Your task to perform on an android device: What's the news about the US dollar exchange rate? Image 0: 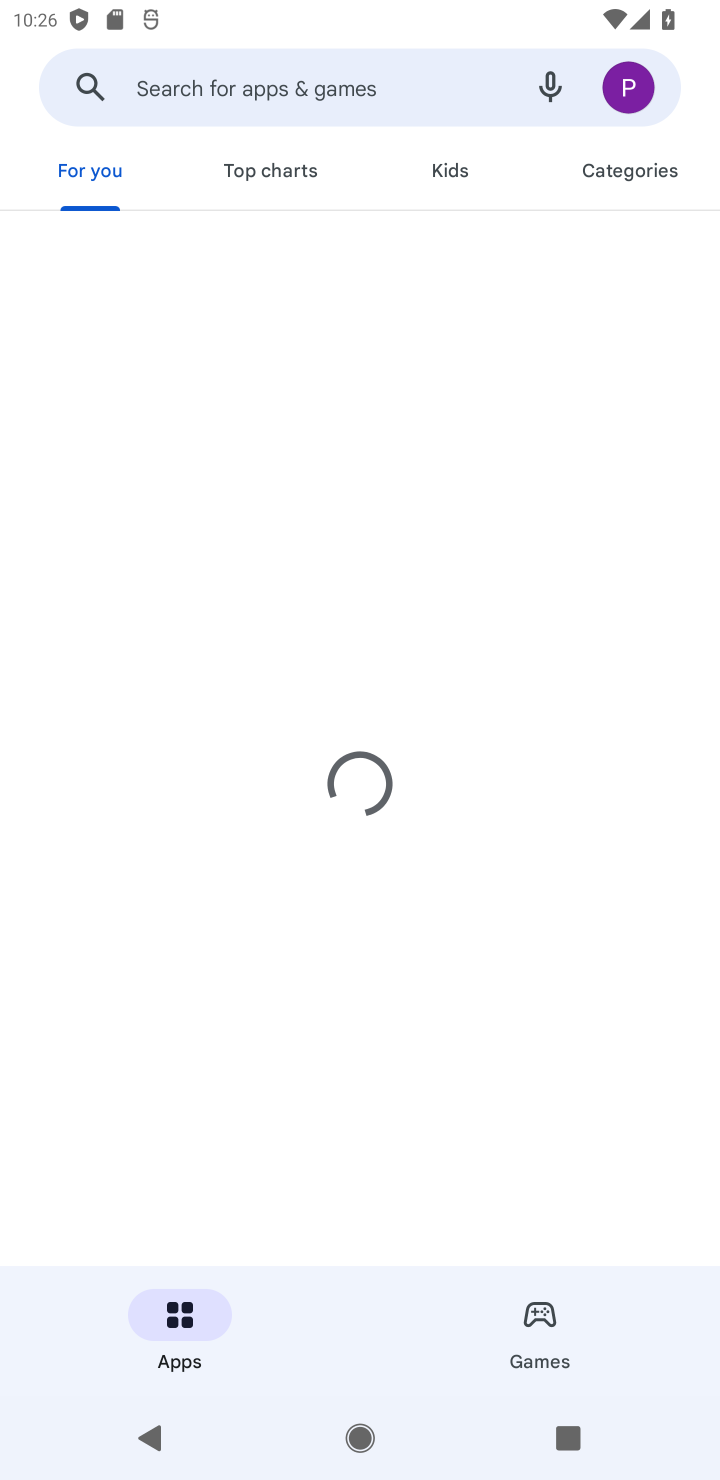
Step 0: press home button
Your task to perform on an android device: What's the news about the US dollar exchange rate? Image 1: 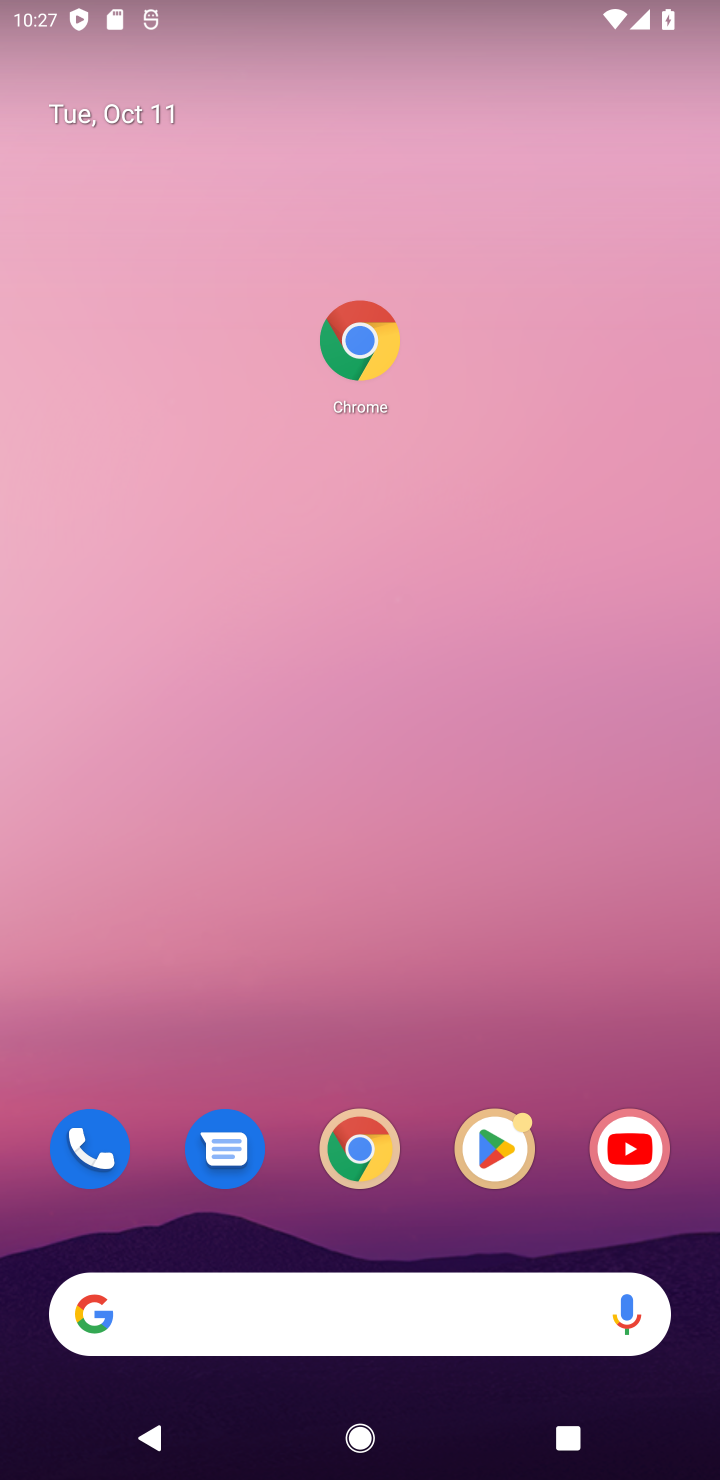
Step 1: drag from (374, 713) to (461, 280)
Your task to perform on an android device: What's the news about the US dollar exchange rate? Image 2: 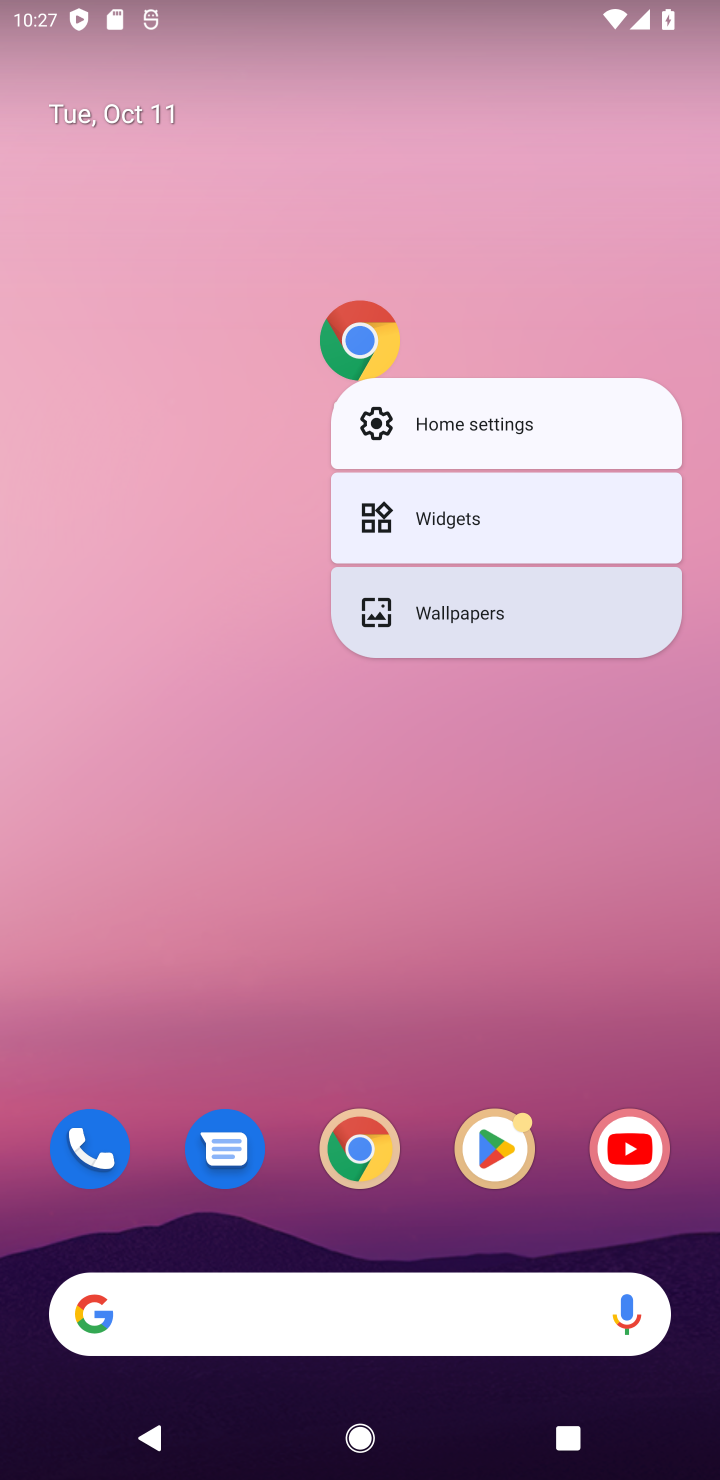
Step 2: click (414, 884)
Your task to perform on an android device: What's the news about the US dollar exchange rate? Image 3: 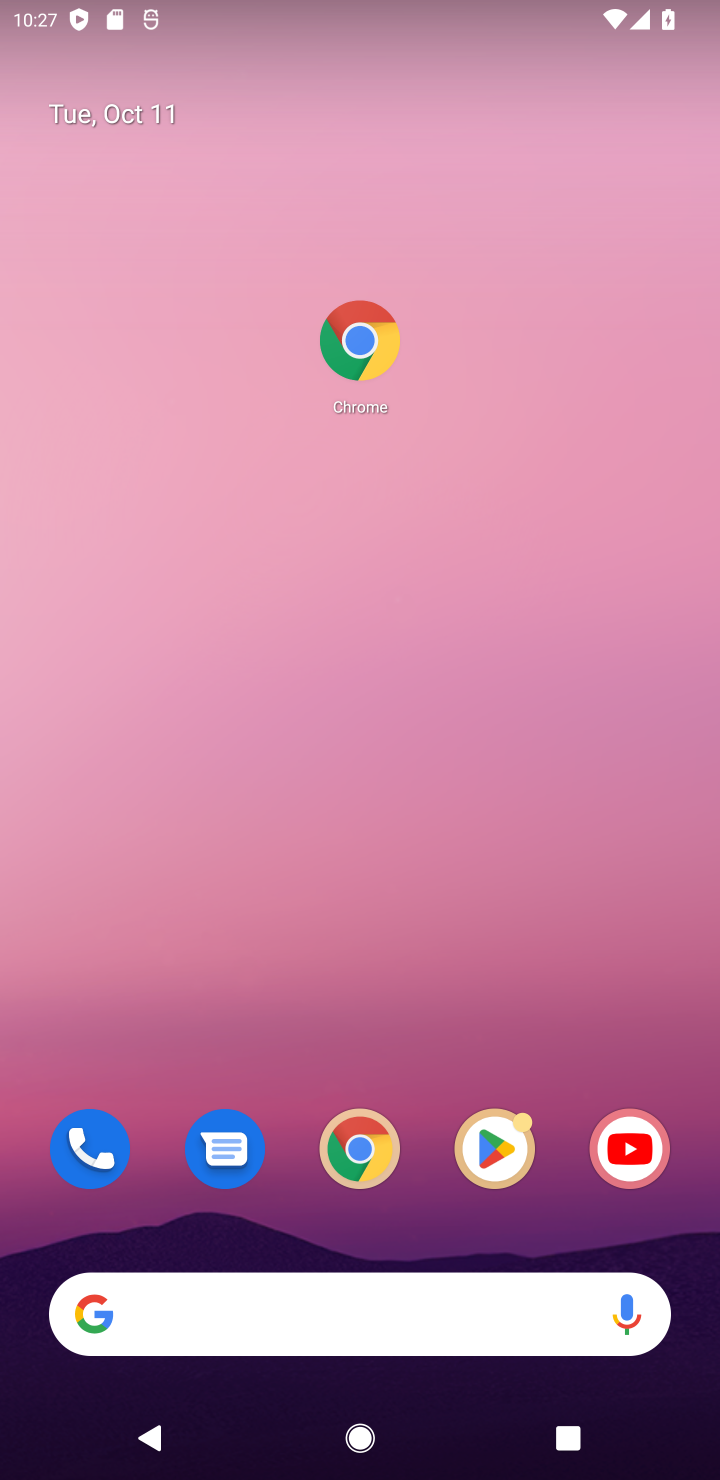
Step 3: drag from (349, 1018) to (528, 432)
Your task to perform on an android device: What's the news about the US dollar exchange rate? Image 4: 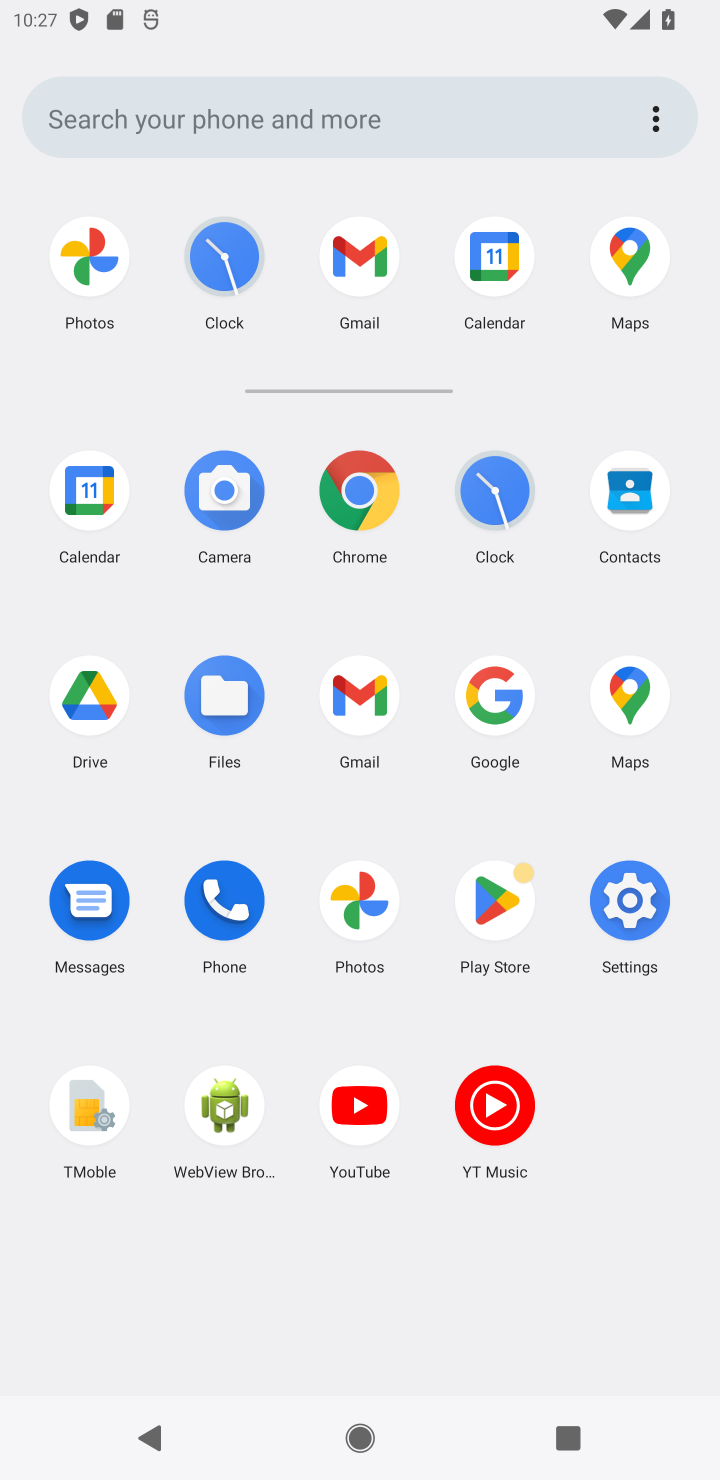
Step 4: click (363, 506)
Your task to perform on an android device: What's the news about the US dollar exchange rate? Image 5: 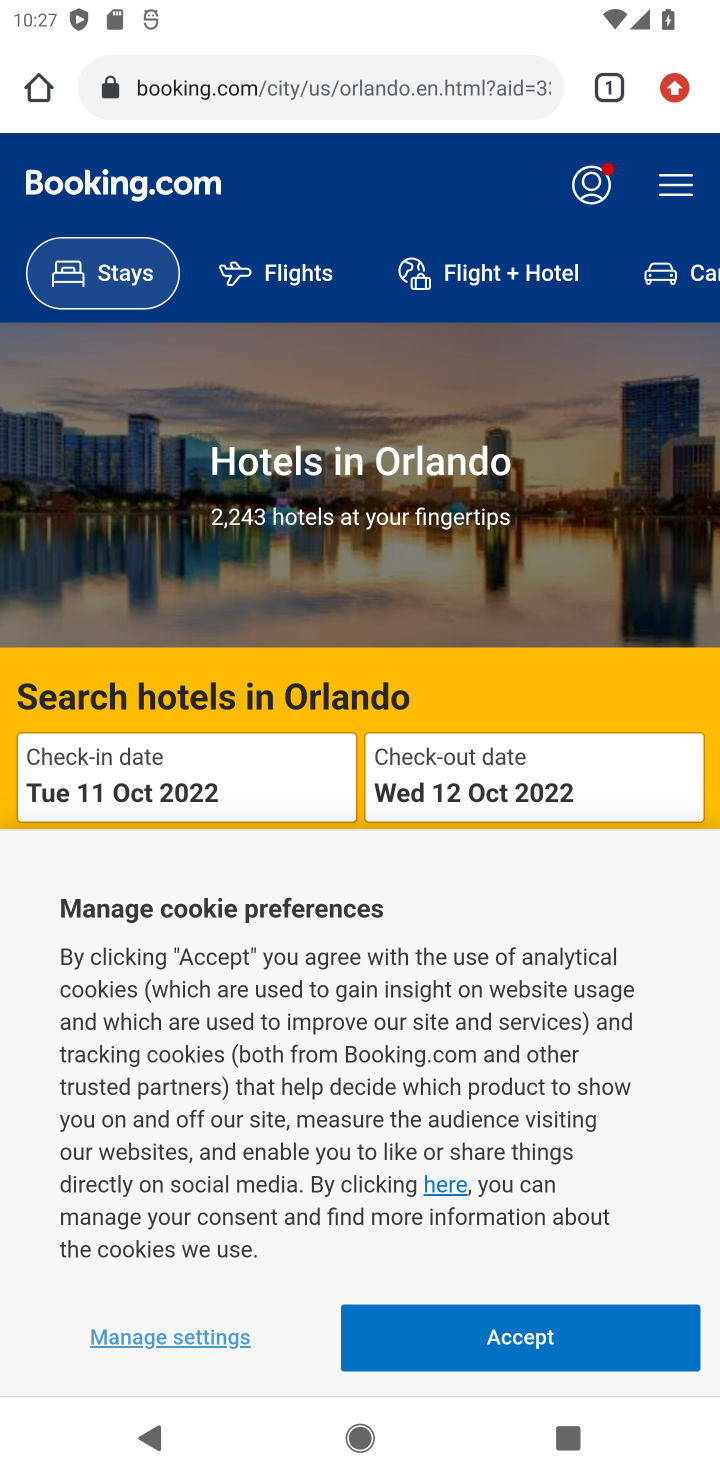
Step 5: click (390, 96)
Your task to perform on an android device: What's the news about the US dollar exchange rate? Image 6: 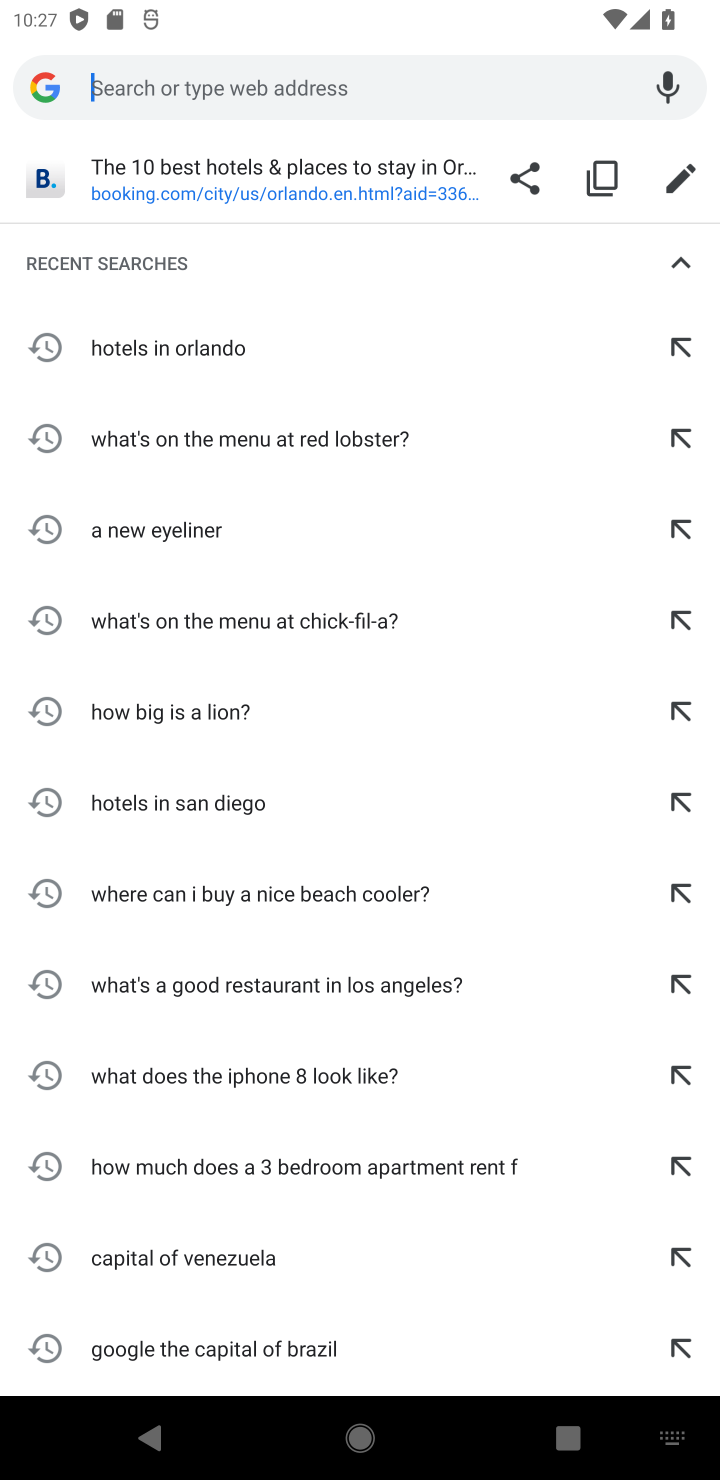
Step 6: type "What's the news about the US dollar exchange rate?"
Your task to perform on an android device: What's the news about the US dollar exchange rate? Image 7: 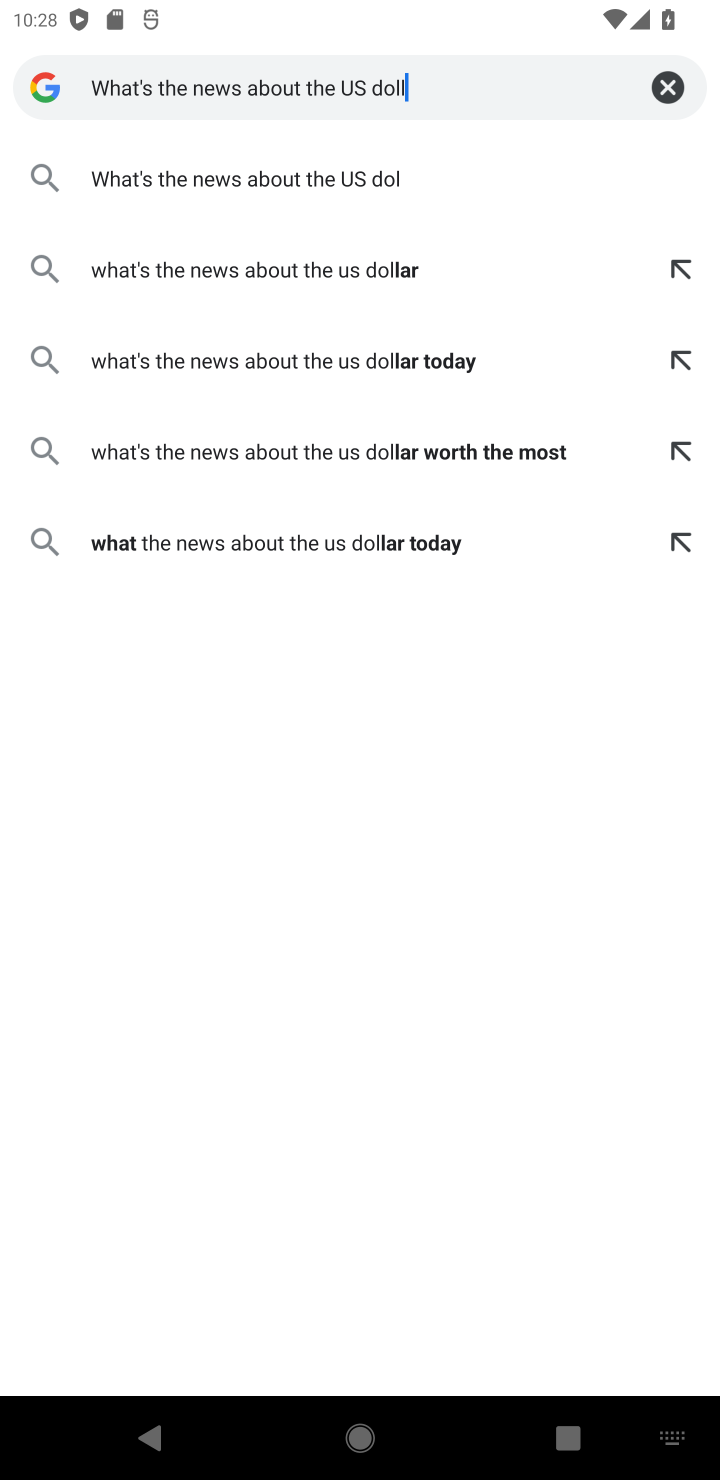
Step 7: press enter
Your task to perform on an android device: What's the news about the US dollar exchange rate? Image 8: 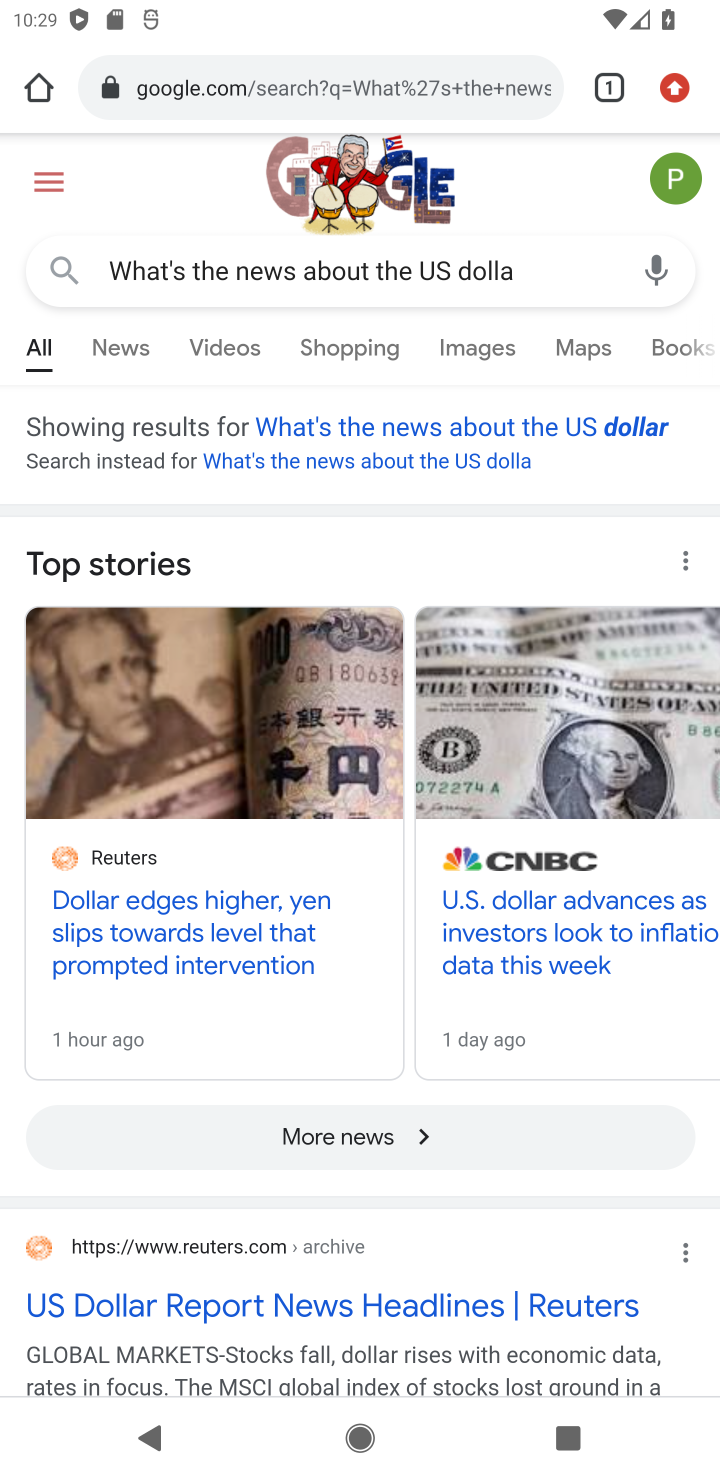
Step 8: task complete